Your task to perform on an android device: Open location settings Image 0: 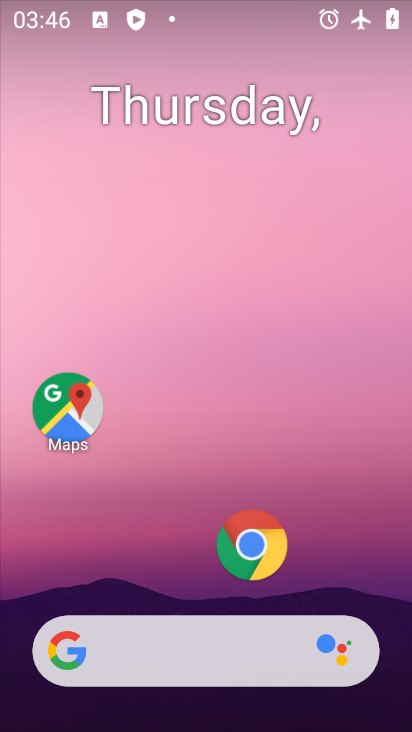
Step 0: drag from (276, 601) to (324, 13)
Your task to perform on an android device: Open location settings Image 1: 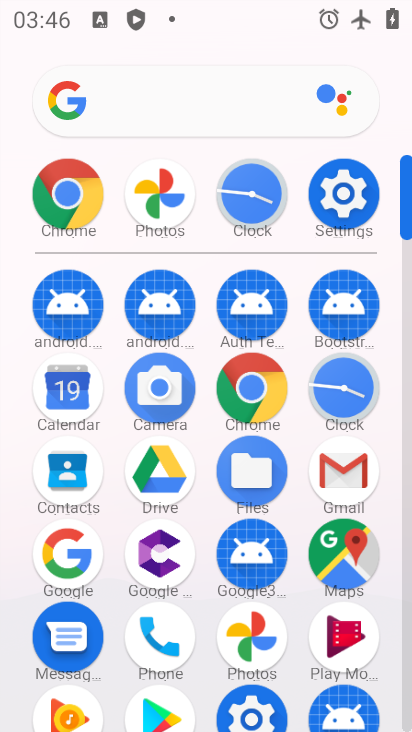
Step 1: click (339, 205)
Your task to perform on an android device: Open location settings Image 2: 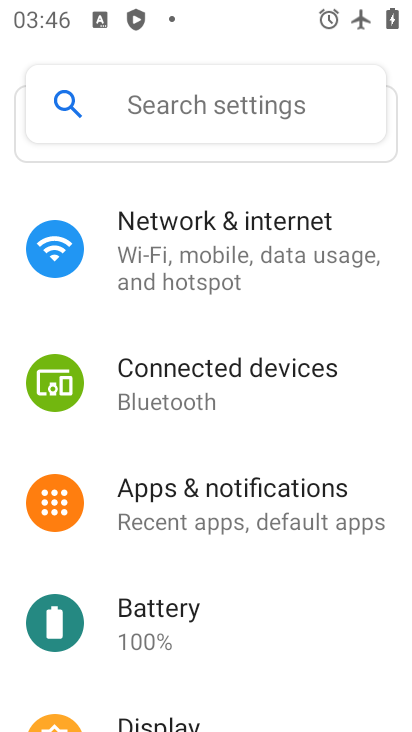
Step 2: drag from (308, 672) to (287, 160)
Your task to perform on an android device: Open location settings Image 3: 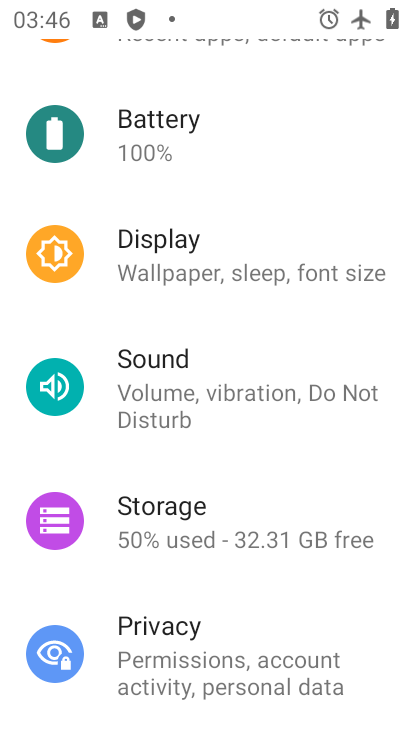
Step 3: drag from (247, 661) to (286, 161)
Your task to perform on an android device: Open location settings Image 4: 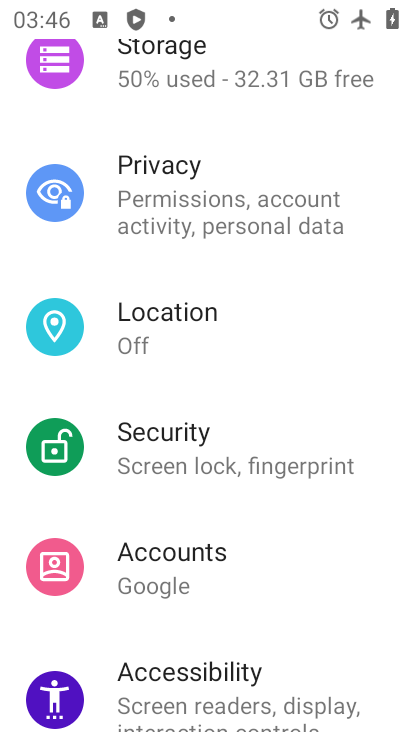
Step 4: click (176, 328)
Your task to perform on an android device: Open location settings Image 5: 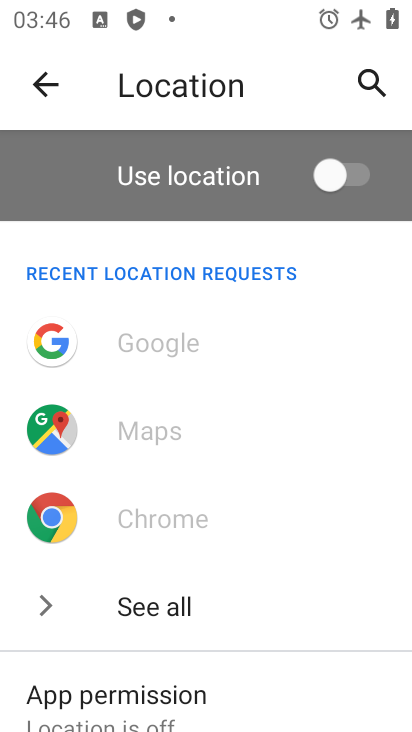
Step 5: task complete